Your task to perform on an android device: clear history in the chrome app Image 0: 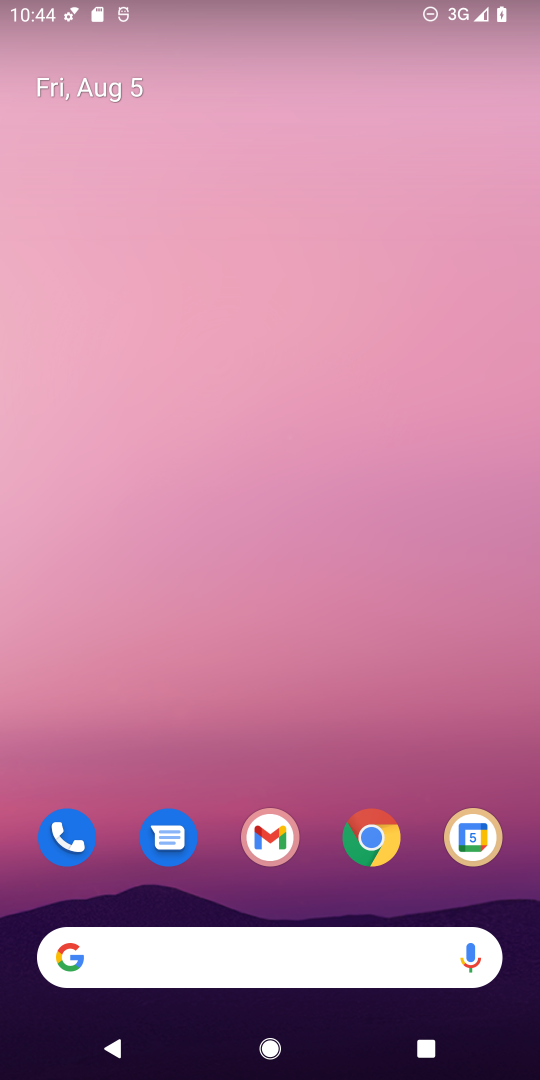
Step 0: click (376, 836)
Your task to perform on an android device: clear history in the chrome app Image 1: 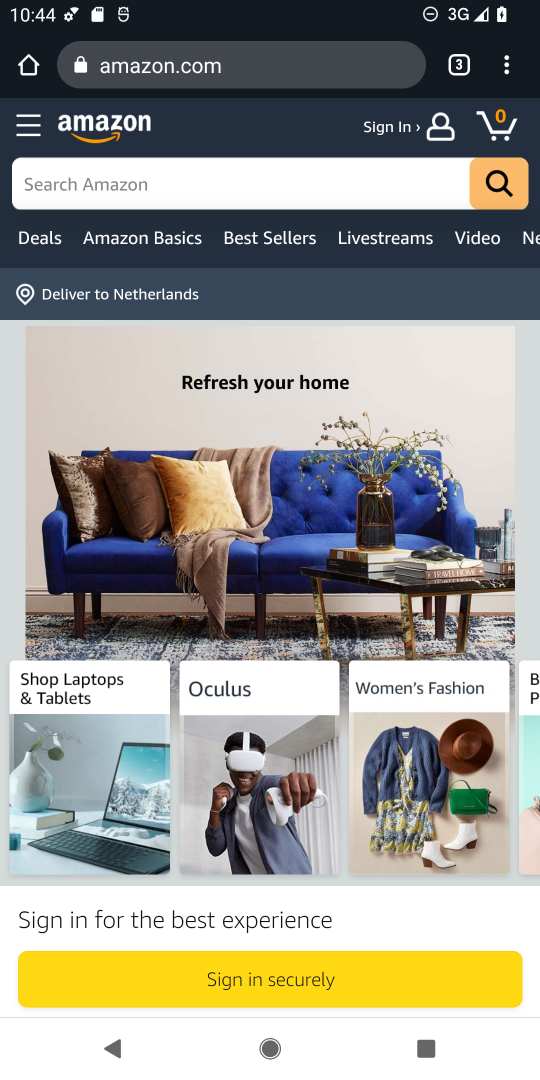
Step 1: click (507, 56)
Your task to perform on an android device: clear history in the chrome app Image 2: 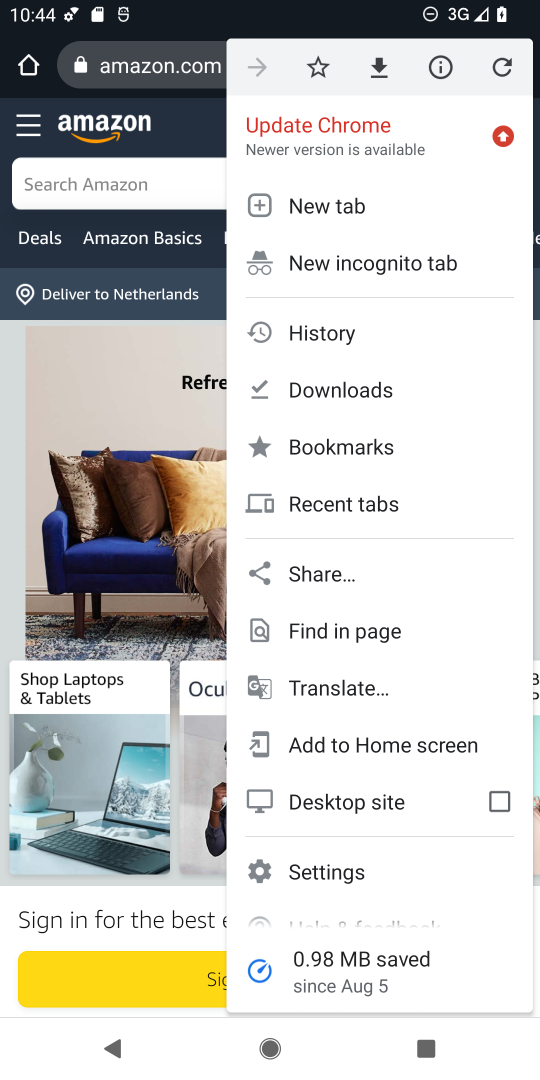
Step 2: click (358, 326)
Your task to perform on an android device: clear history in the chrome app Image 3: 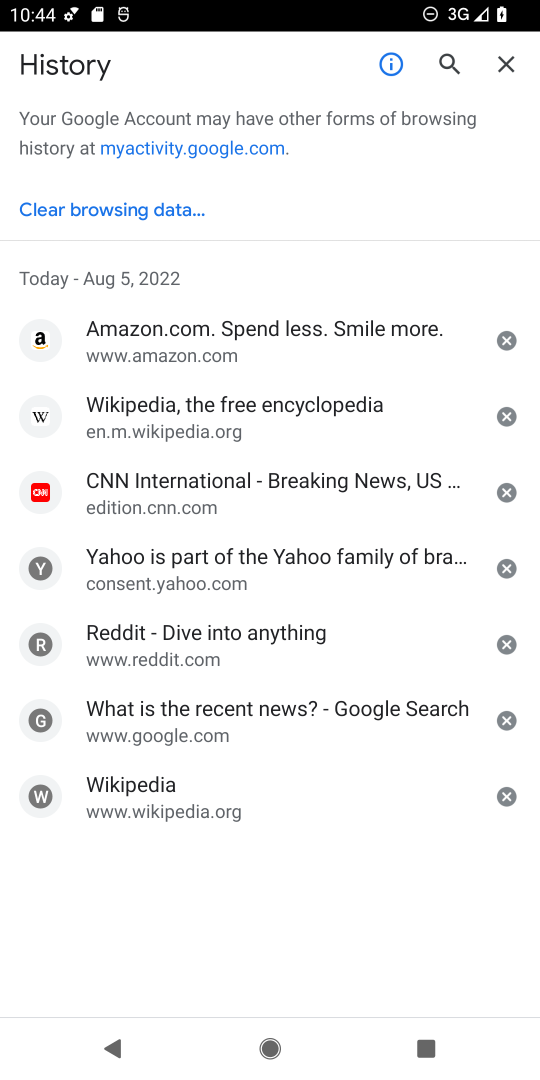
Step 3: click (163, 209)
Your task to perform on an android device: clear history in the chrome app Image 4: 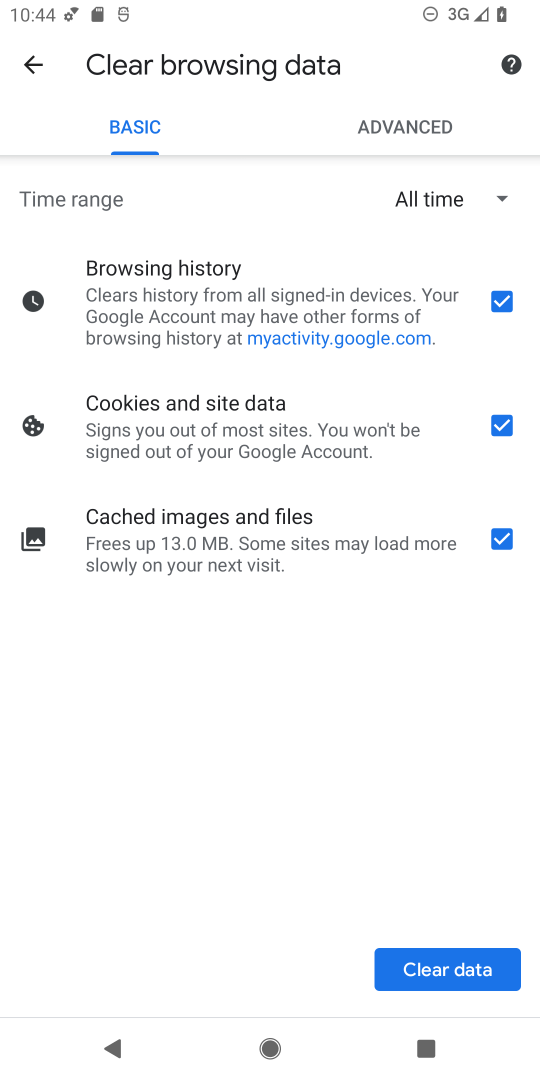
Step 4: click (394, 970)
Your task to perform on an android device: clear history in the chrome app Image 5: 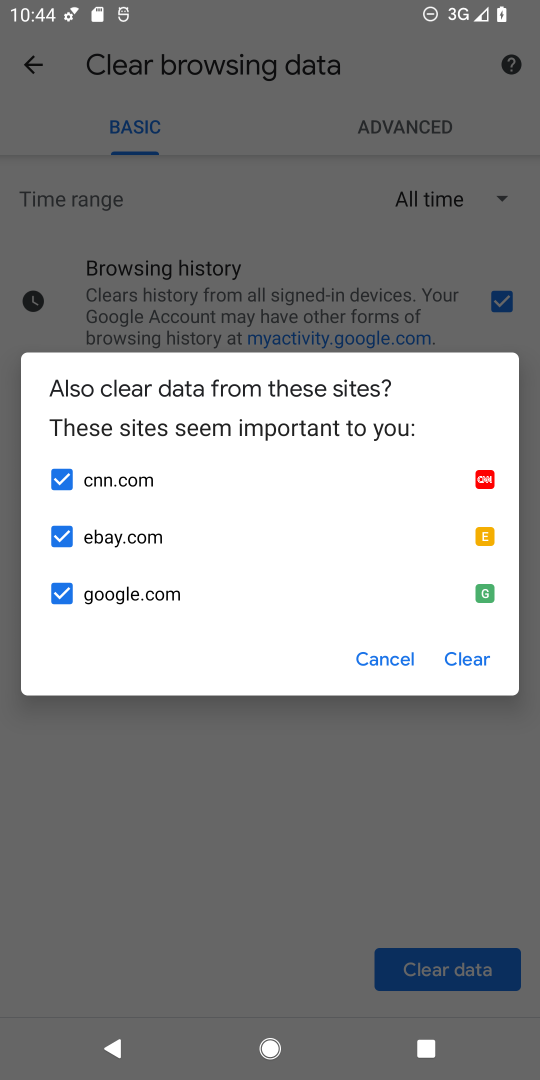
Step 5: click (475, 656)
Your task to perform on an android device: clear history in the chrome app Image 6: 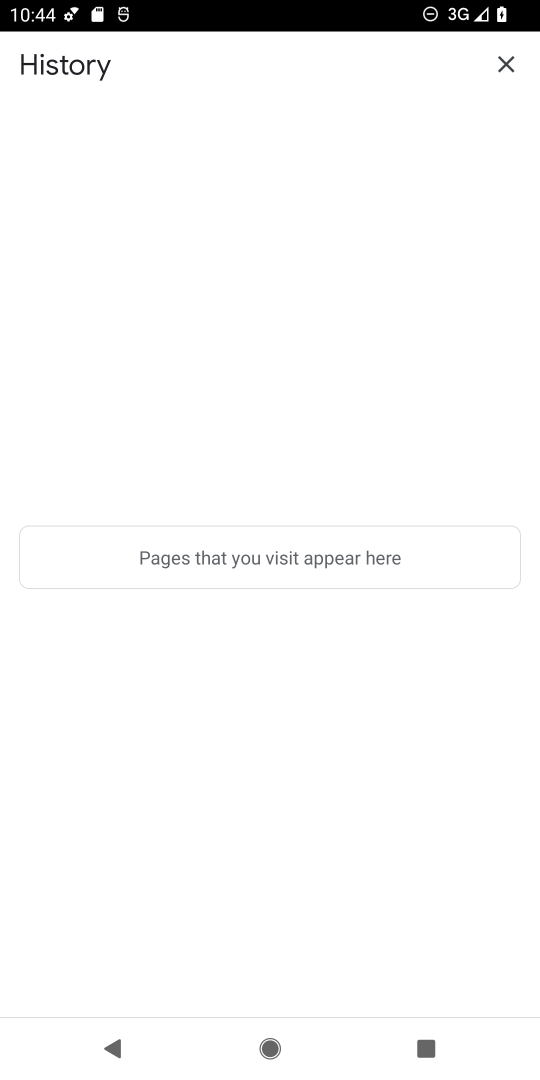
Step 6: task complete